Your task to perform on an android device: Clear the cart on walmart.com. Search for acer nitro on walmart.com, select the first entry, and add it to the cart. Image 0: 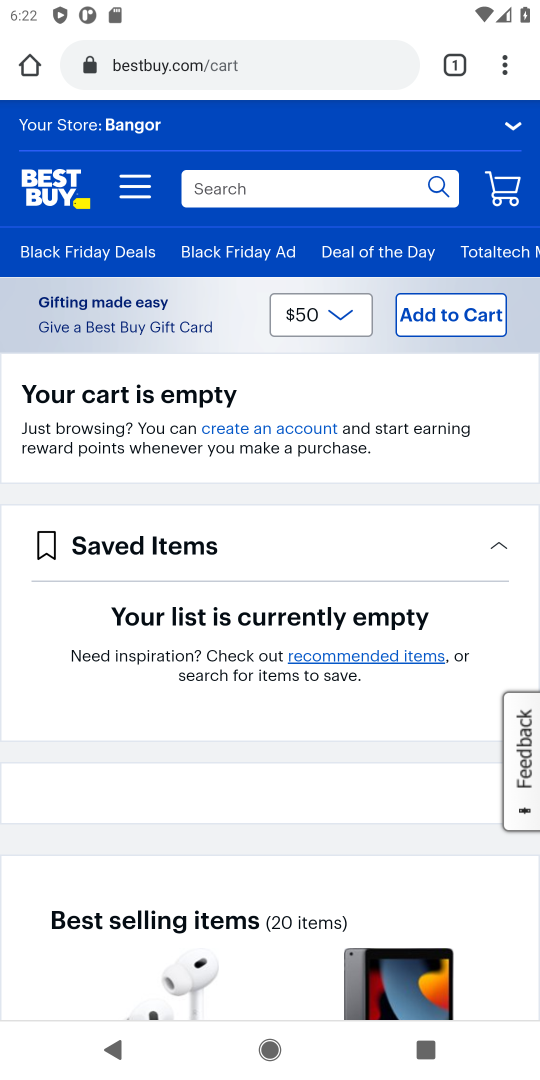
Step 0: click (209, 67)
Your task to perform on an android device: Clear the cart on walmart.com. Search for acer nitro on walmart.com, select the first entry, and add it to the cart. Image 1: 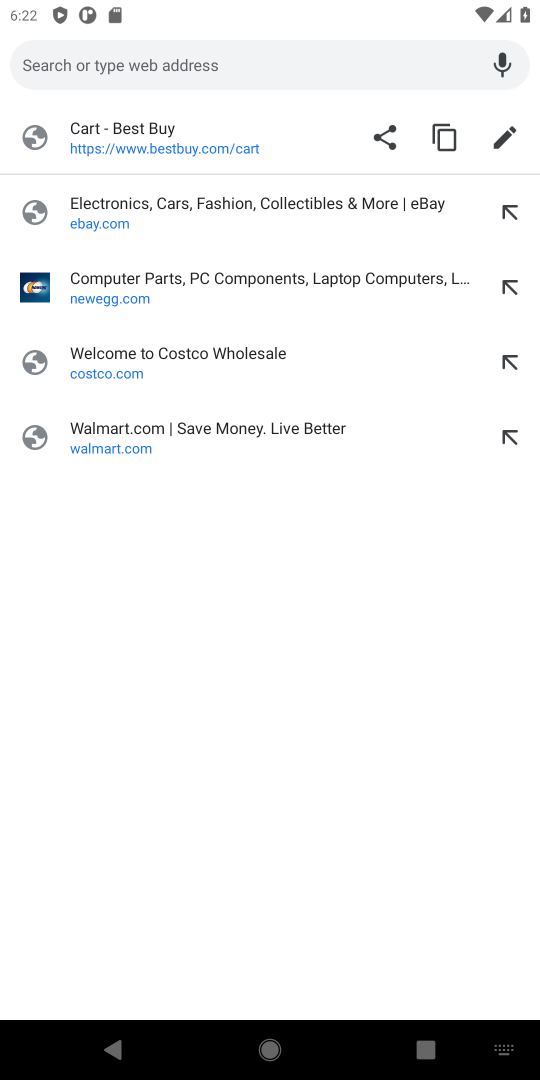
Step 1: click (106, 443)
Your task to perform on an android device: Clear the cart on walmart.com. Search for acer nitro on walmart.com, select the first entry, and add it to the cart. Image 2: 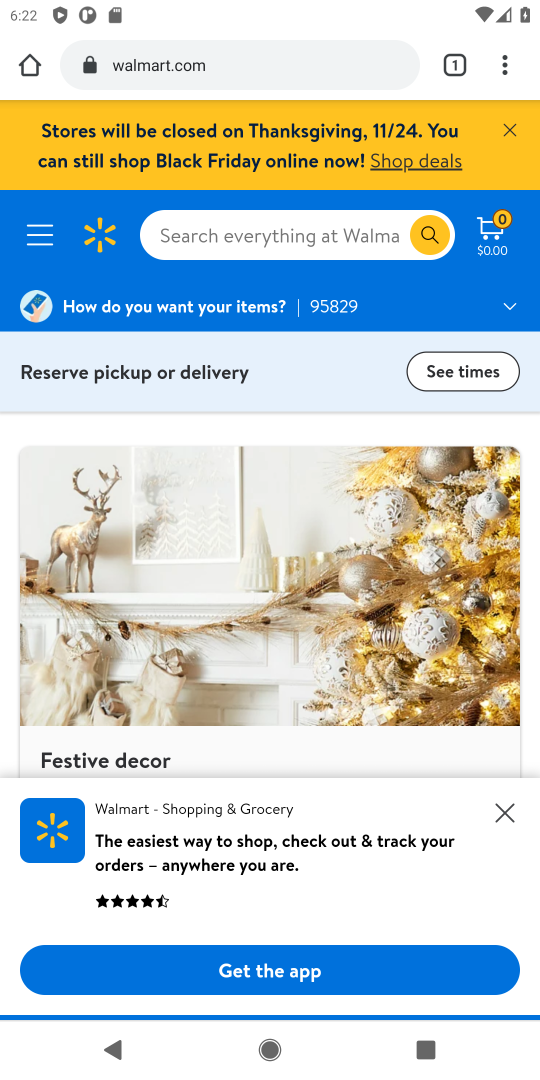
Step 2: click (487, 250)
Your task to perform on an android device: Clear the cart on walmart.com. Search for acer nitro on walmart.com, select the first entry, and add it to the cart. Image 3: 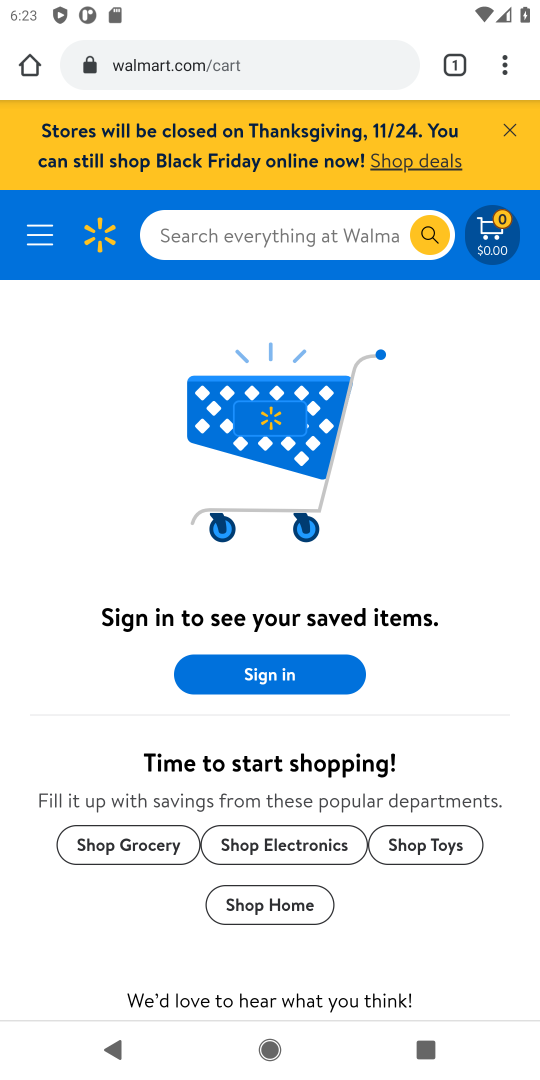
Step 3: click (223, 233)
Your task to perform on an android device: Clear the cart on walmart.com. Search for acer nitro on walmart.com, select the first entry, and add it to the cart. Image 4: 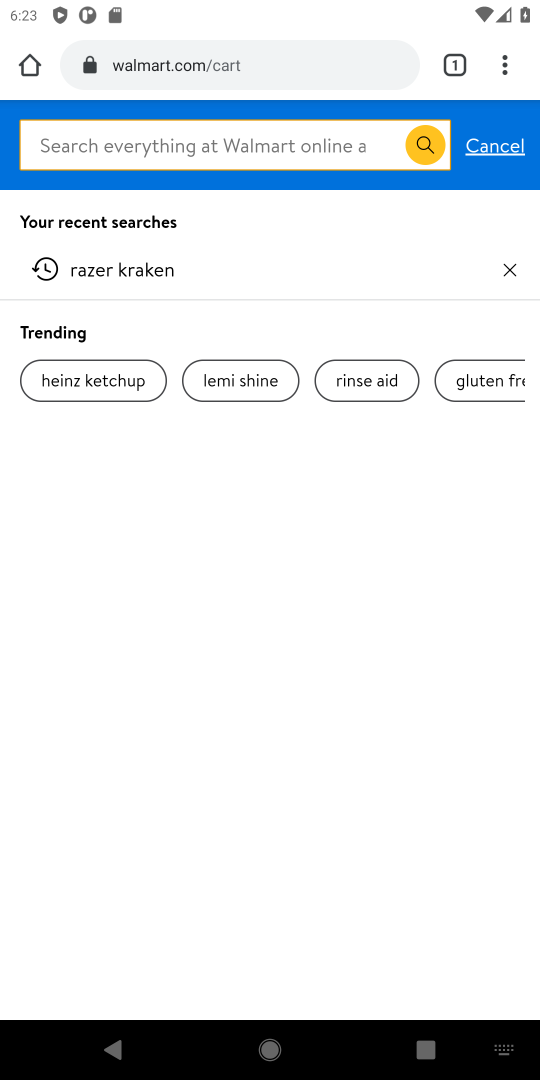
Step 4: type " acer nitro"
Your task to perform on an android device: Clear the cart on walmart.com. Search for acer nitro on walmart.com, select the first entry, and add it to the cart. Image 5: 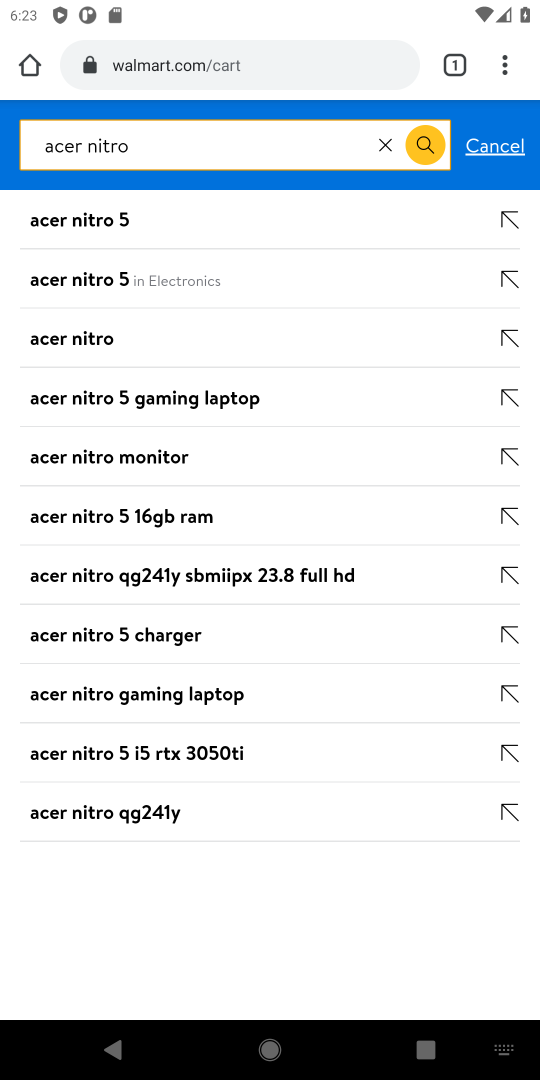
Step 5: click (61, 340)
Your task to perform on an android device: Clear the cart on walmart.com. Search for acer nitro on walmart.com, select the first entry, and add it to the cart. Image 6: 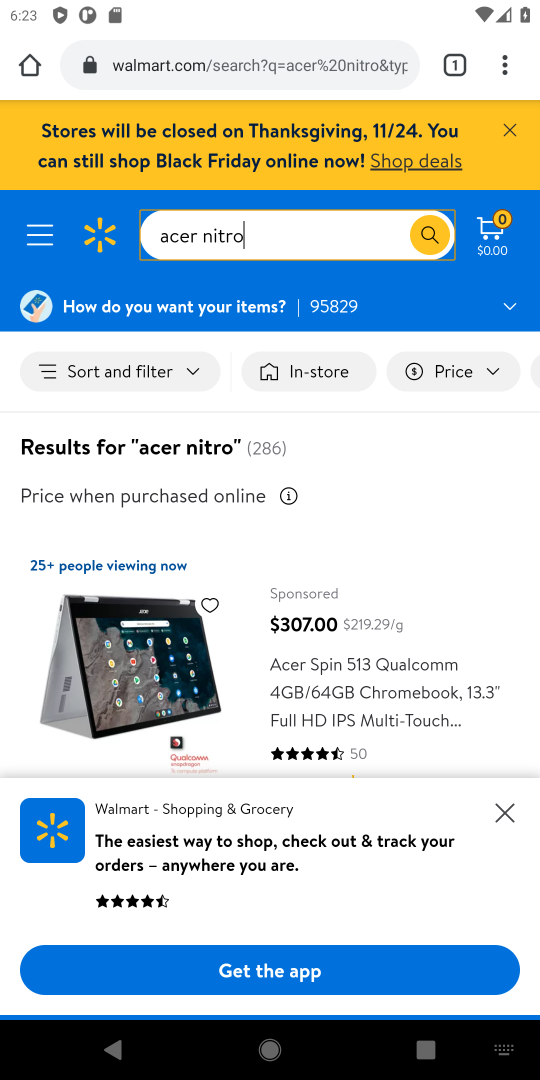
Step 6: task complete